Your task to perform on an android device: toggle notifications settings in the gmail app Image 0: 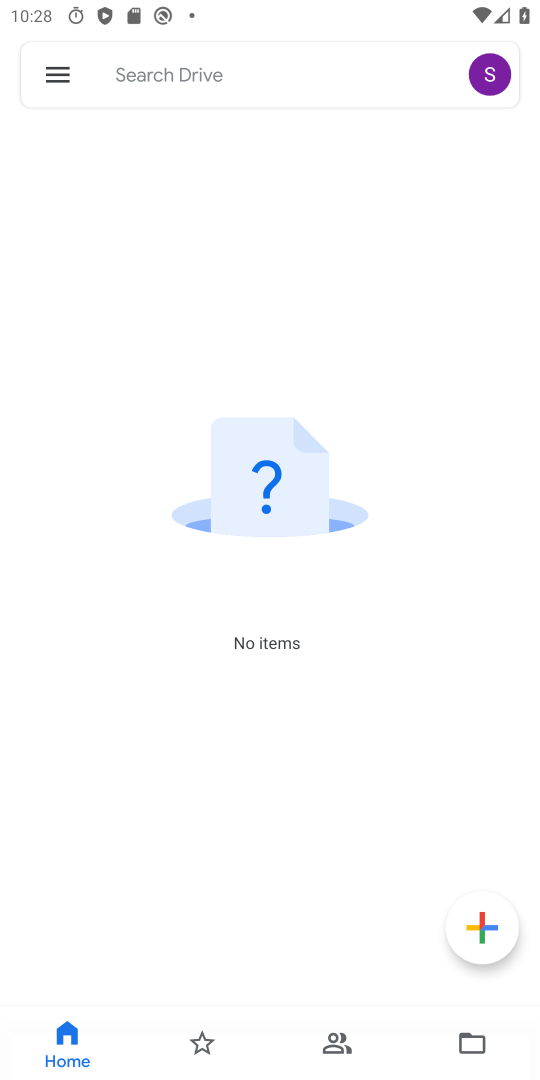
Step 0: press home button
Your task to perform on an android device: toggle notifications settings in the gmail app Image 1: 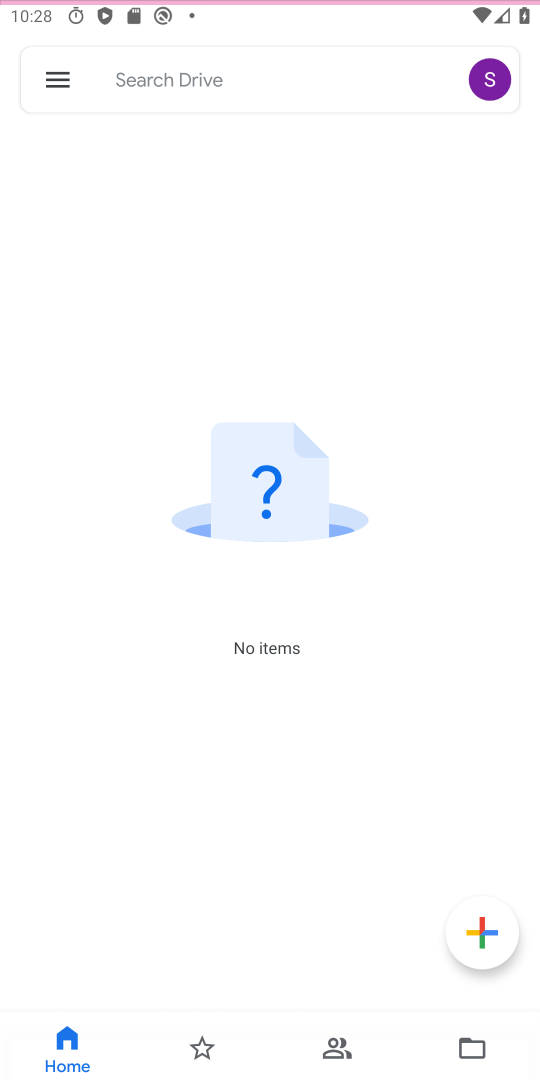
Step 1: click (503, 538)
Your task to perform on an android device: toggle notifications settings in the gmail app Image 2: 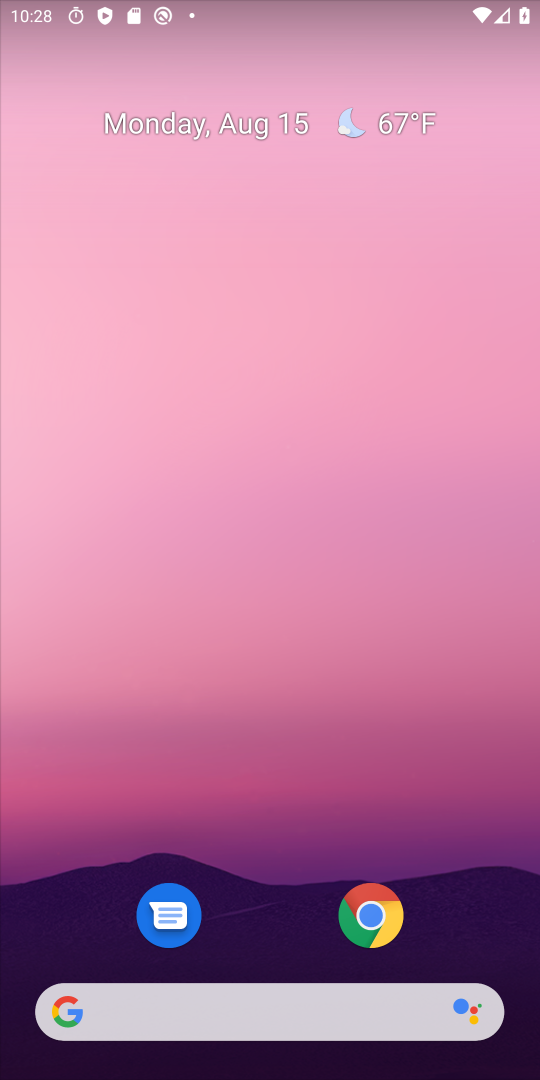
Step 2: drag from (415, 885) to (323, 317)
Your task to perform on an android device: toggle notifications settings in the gmail app Image 3: 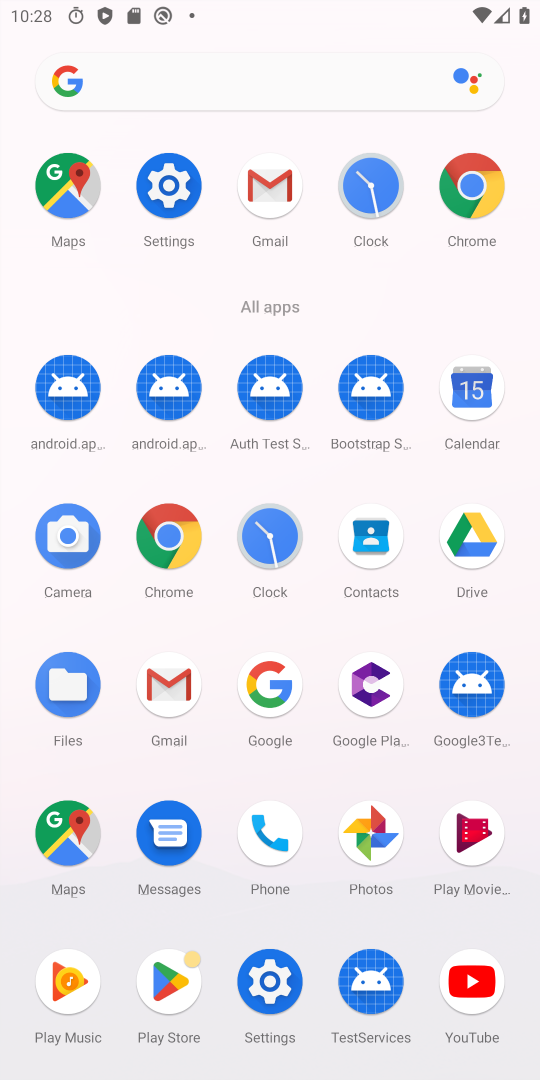
Step 3: drag from (296, 301) to (281, 243)
Your task to perform on an android device: toggle notifications settings in the gmail app Image 4: 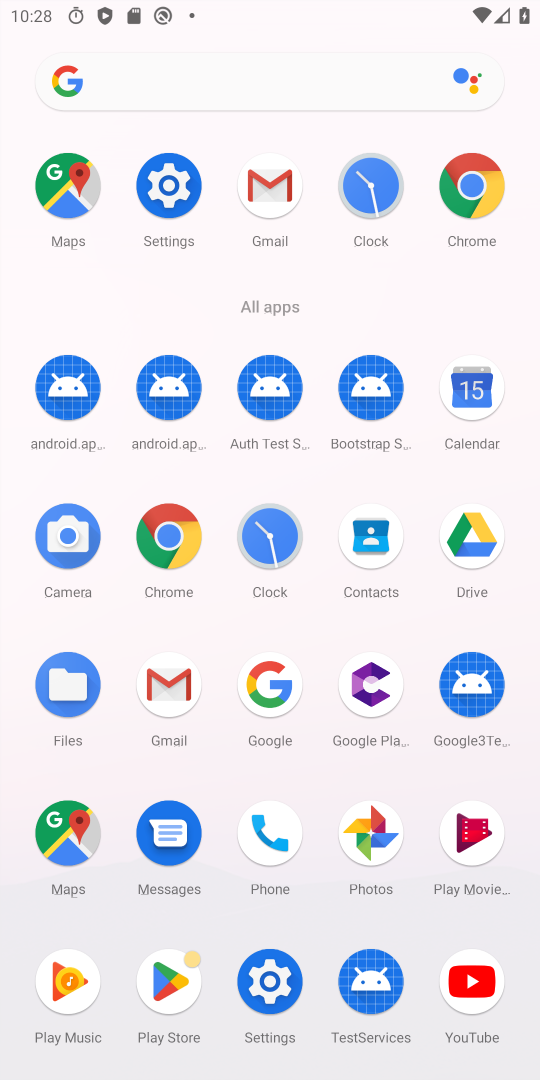
Step 4: click (263, 179)
Your task to perform on an android device: toggle notifications settings in the gmail app Image 5: 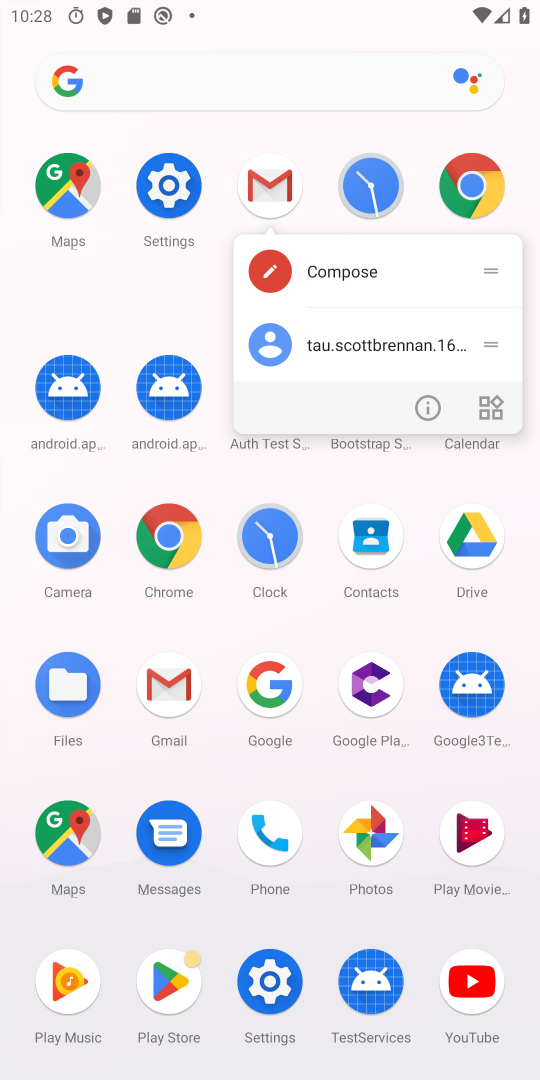
Step 5: click (433, 402)
Your task to perform on an android device: toggle notifications settings in the gmail app Image 6: 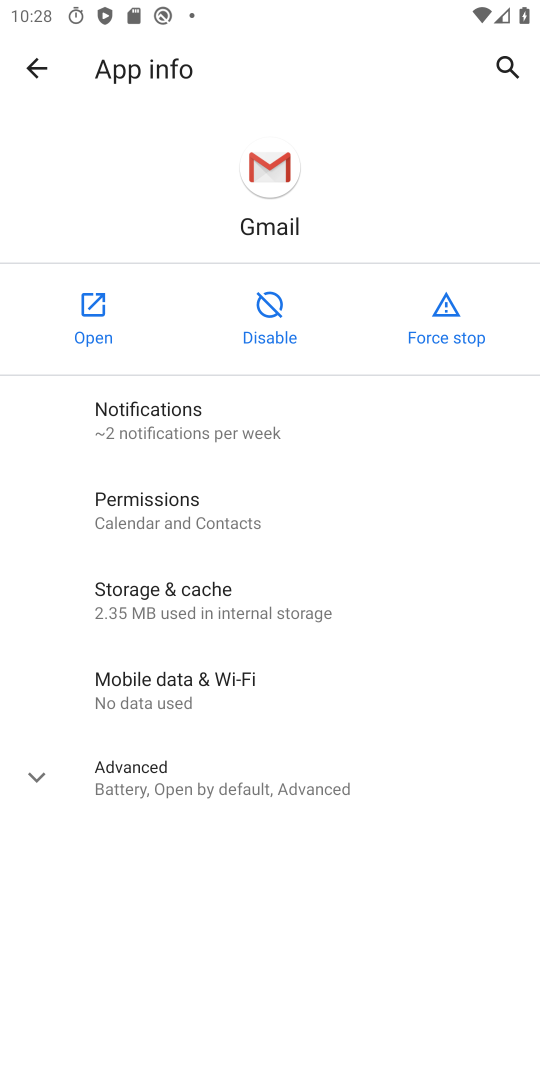
Step 6: drag from (325, 592) to (189, 431)
Your task to perform on an android device: toggle notifications settings in the gmail app Image 7: 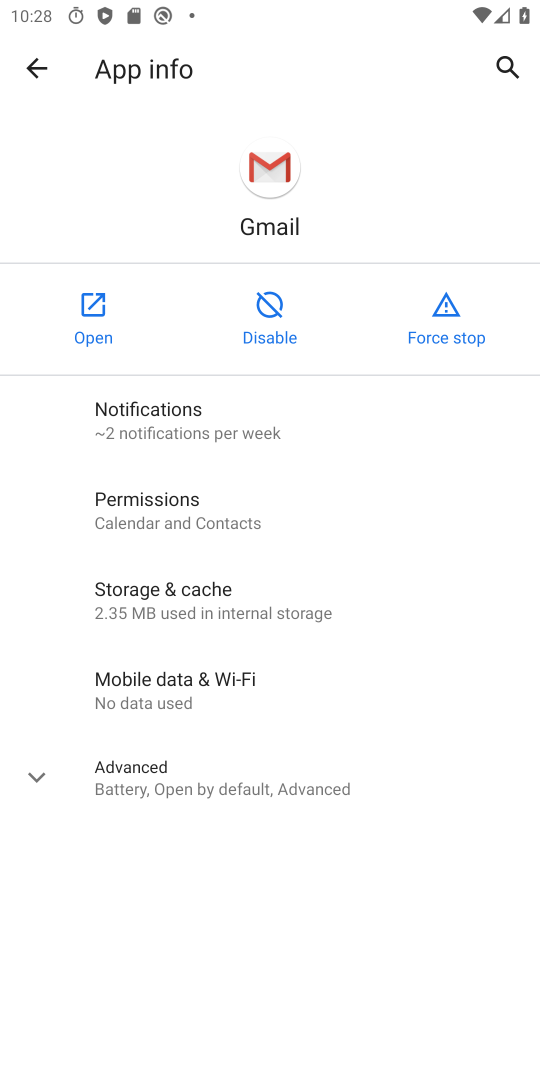
Step 7: click (189, 431)
Your task to perform on an android device: toggle notifications settings in the gmail app Image 8: 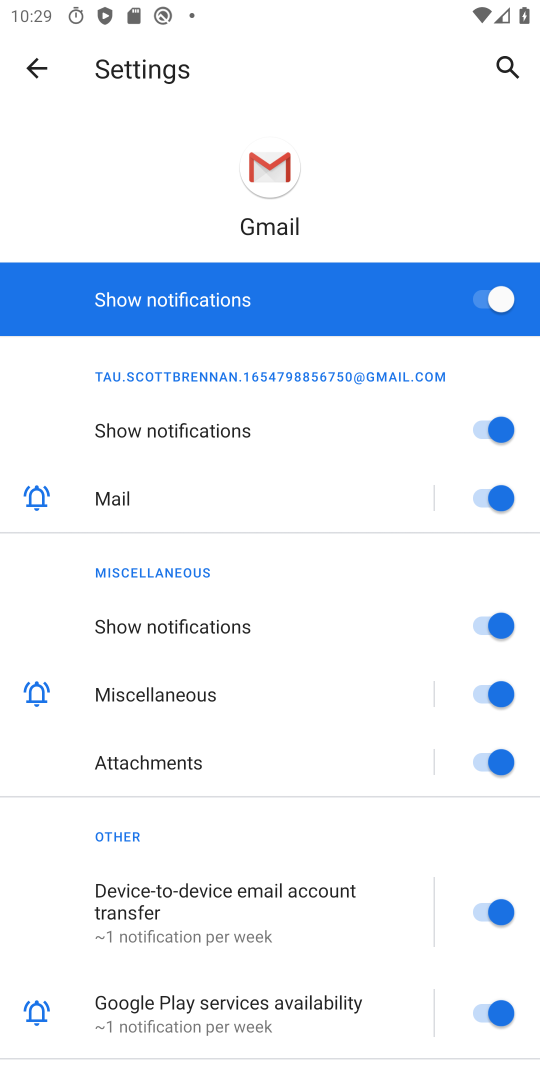
Step 8: click (495, 305)
Your task to perform on an android device: toggle notifications settings in the gmail app Image 9: 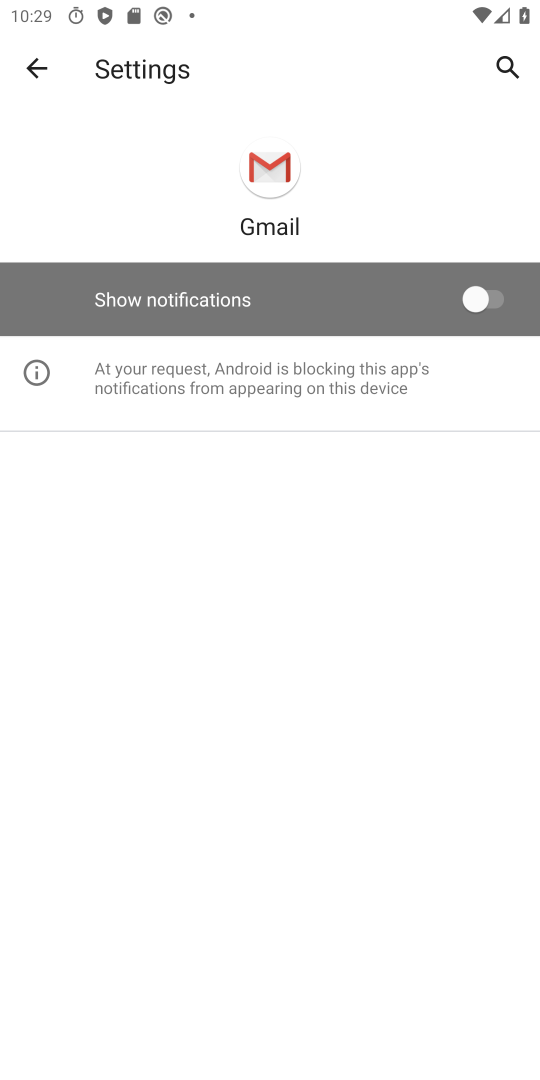
Step 9: task complete